Your task to perform on an android device: choose inbox layout in the gmail app Image 0: 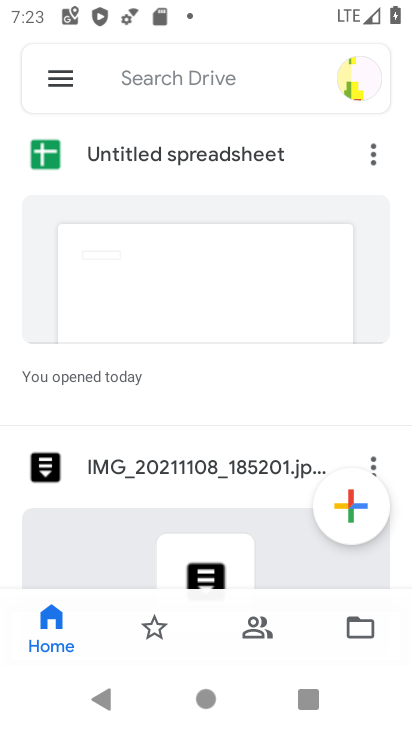
Step 0: press home button
Your task to perform on an android device: choose inbox layout in the gmail app Image 1: 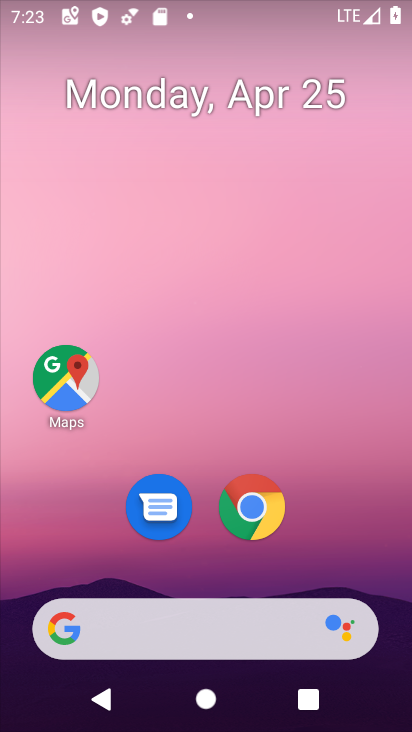
Step 1: drag from (333, 532) to (307, 99)
Your task to perform on an android device: choose inbox layout in the gmail app Image 2: 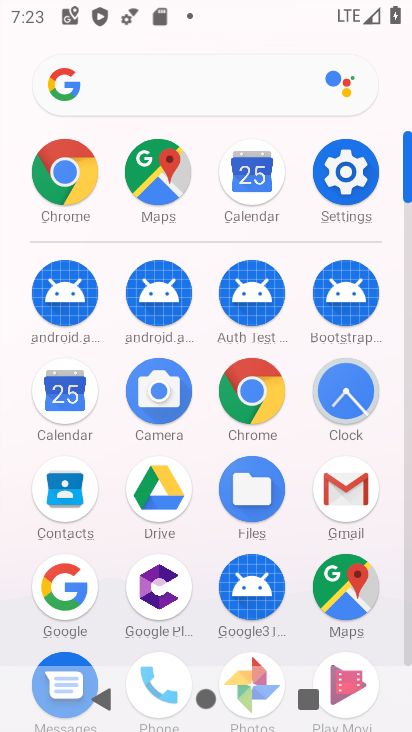
Step 2: click (330, 495)
Your task to perform on an android device: choose inbox layout in the gmail app Image 3: 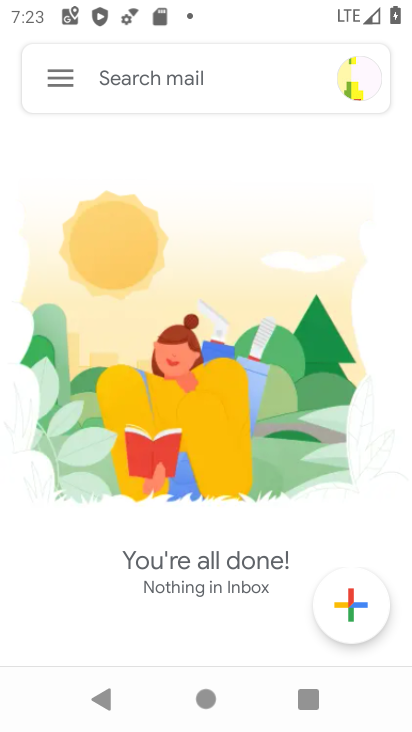
Step 3: click (54, 94)
Your task to perform on an android device: choose inbox layout in the gmail app Image 4: 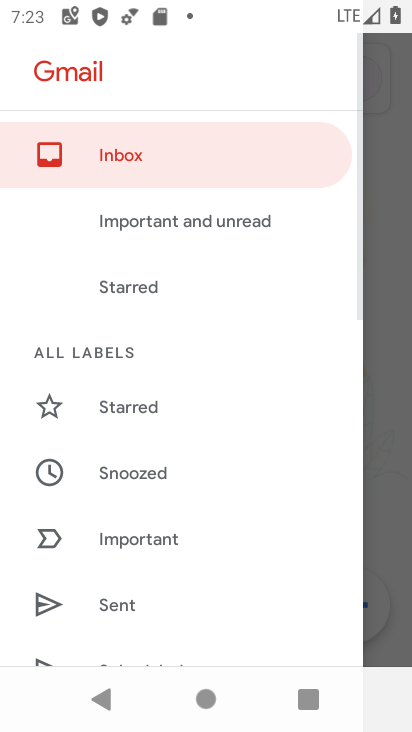
Step 4: drag from (241, 477) to (251, 213)
Your task to perform on an android device: choose inbox layout in the gmail app Image 5: 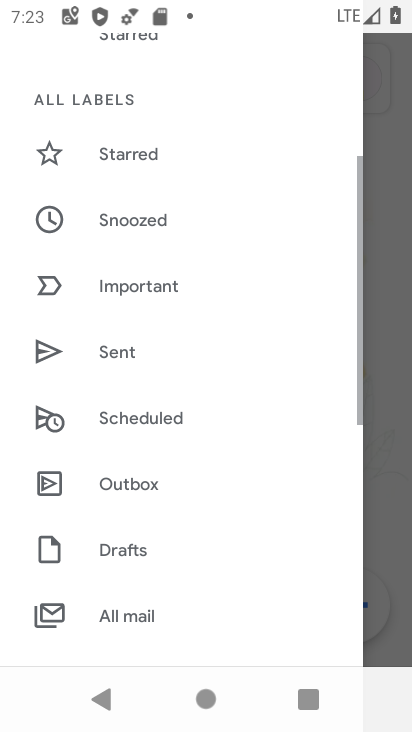
Step 5: drag from (220, 500) to (226, 397)
Your task to perform on an android device: choose inbox layout in the gmail app Image 6: 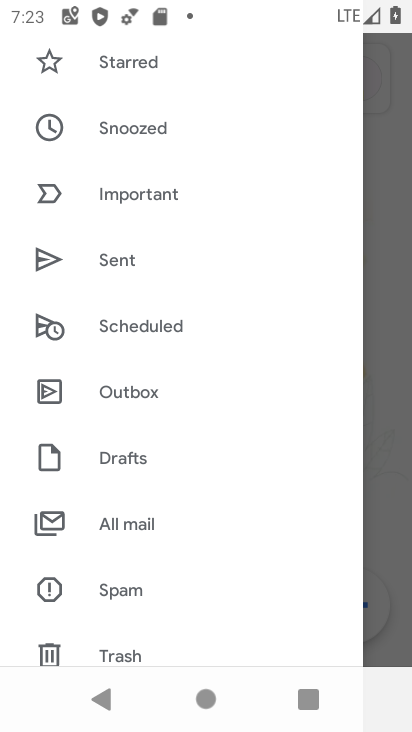
Step 6: drag from (337, 584) to (324, 475)
Your task to perform on an android device: choose inbox layout in the gmail app Image 7: 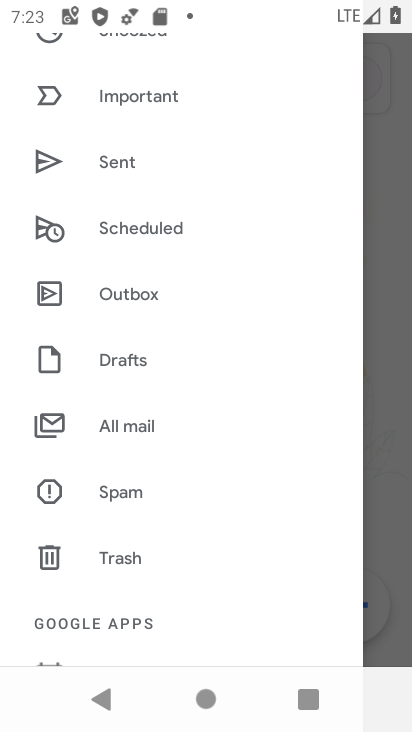
Step 7: drag from (183, 592) to (194, 161)
Your task to perform on an android device: choose inbox layout in the gmail app Image 8: 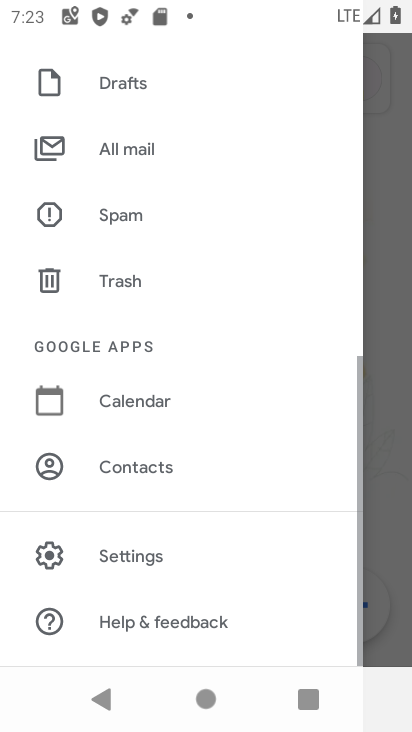
Step 8: click (171, 562)
Your task to perform on an android device: choose inbox layout in the gmail app Image 9: 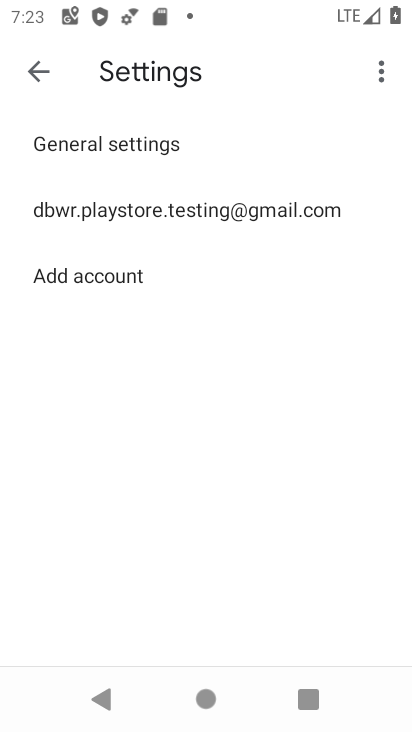
Step 9: click (295, 225)
Your task to perform on an android device: choose inbox layout in the gmail app Image 10: 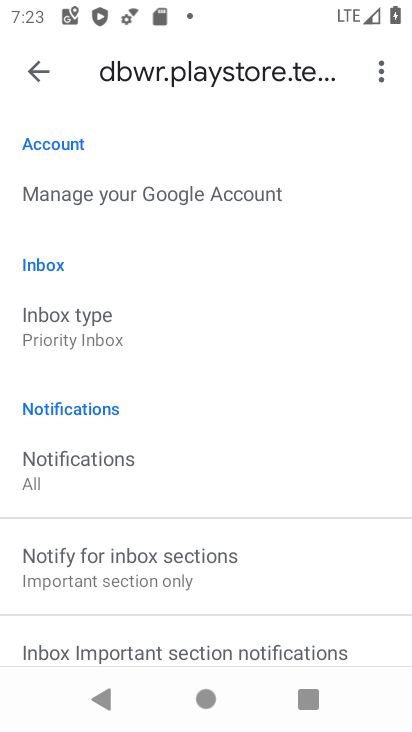
Step 10: click (154, 329)
Your task to perform on an android device: choose inbox layout in the gmail app Image 11: 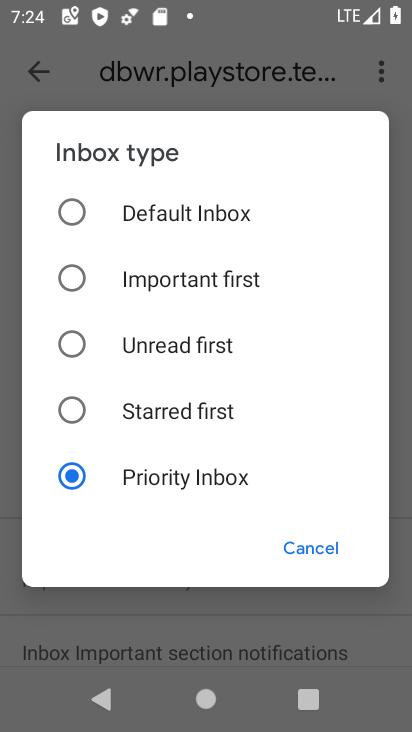
Step 11: click (80, 206)
Your task to perform on an android device: choose inbox layout in the gmail app Image 12: 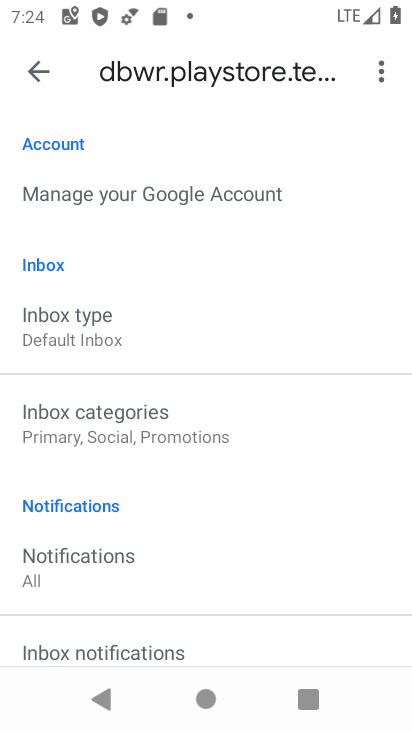
Step 12: click (67, 345)
Your task to perform on an android device: choose inbox layout in the gmail app Image 13: 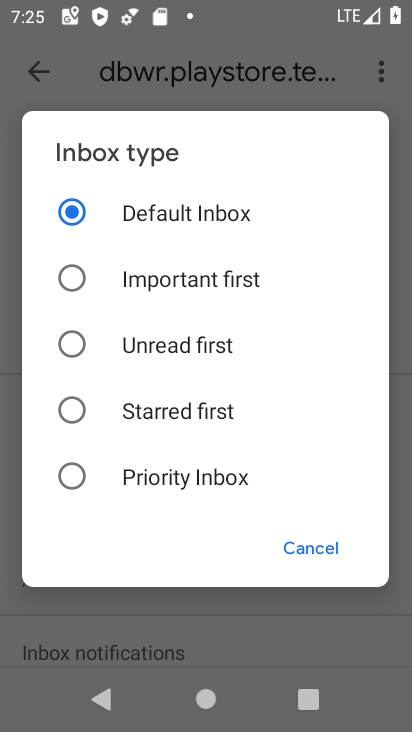
Step 13: click (102, 491)
Your task to perform on an android device: choose inbox layout in the gmail app Image 14: 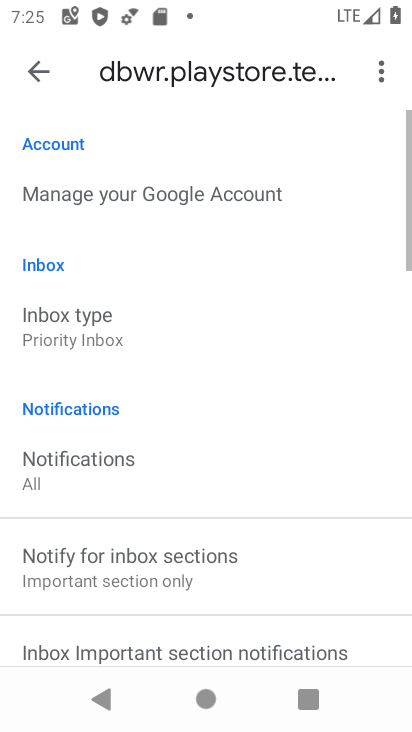
Step 14: task complete